Your task to perform on an android device: check android version Image 0: 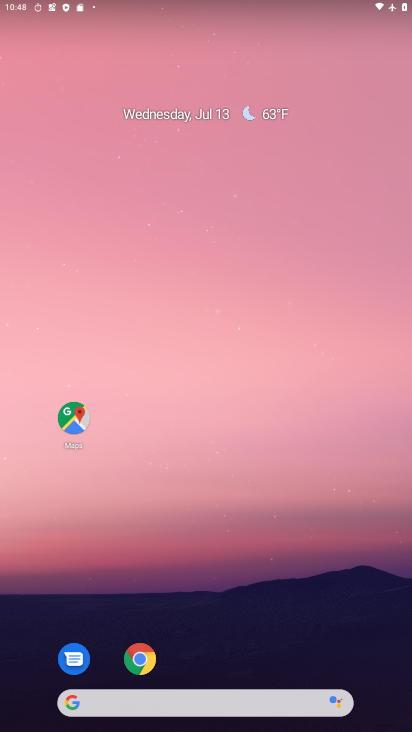
Step 0: drag from (289, 579) to (273, 99)
Your task to perform on an android device: check android version Image 1: 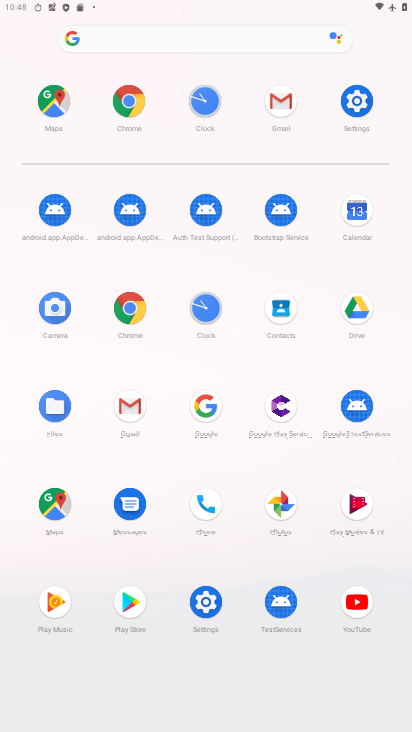
Step 1: click (351, 98)
Your task to perform on an android device: check android version Image 2: 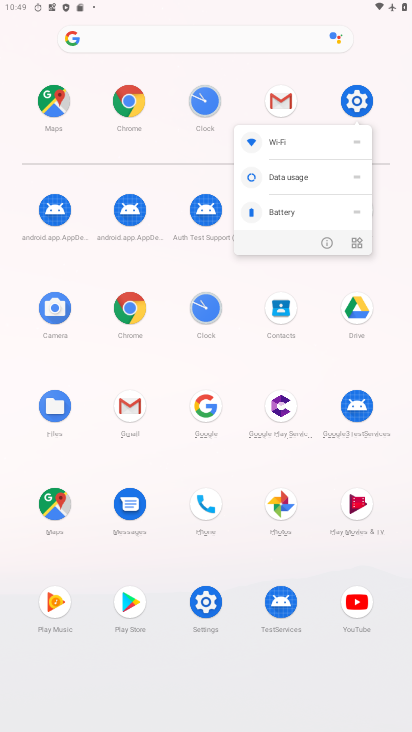
Step 2: click (367, 96)
Your task to perform on an android device: check android version Image 3: 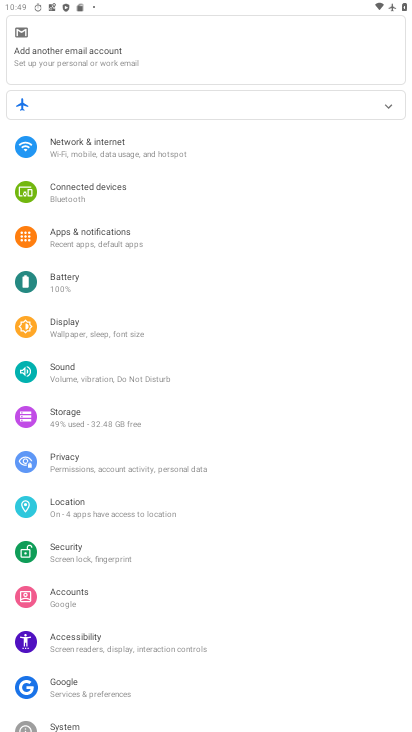
Step 3: drag from (231, 686) to (299, 110)
Your task to perform on an android device: check android version Image 4: 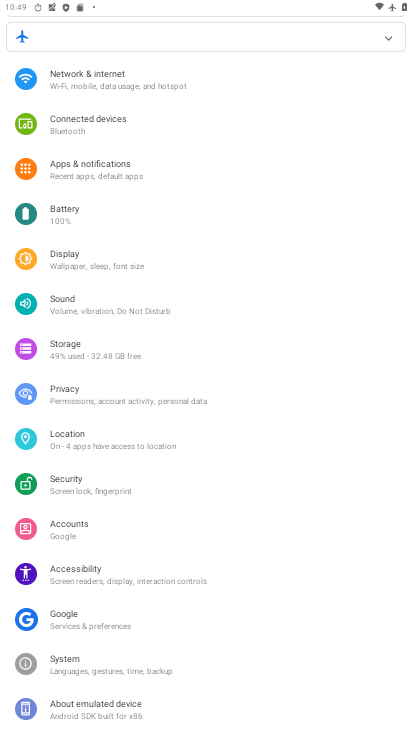
Step 4: click (108, 700)
Your task to perform on an android device: check android version Image 5: 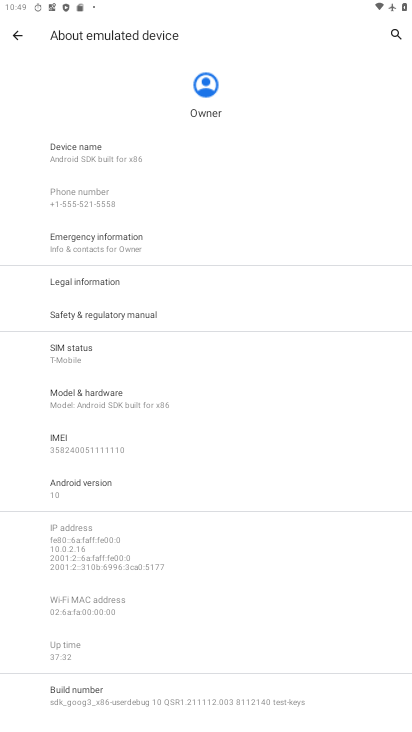
Step 5: click (91, 488)
Your task to perform on an android device: check android version Image 6: 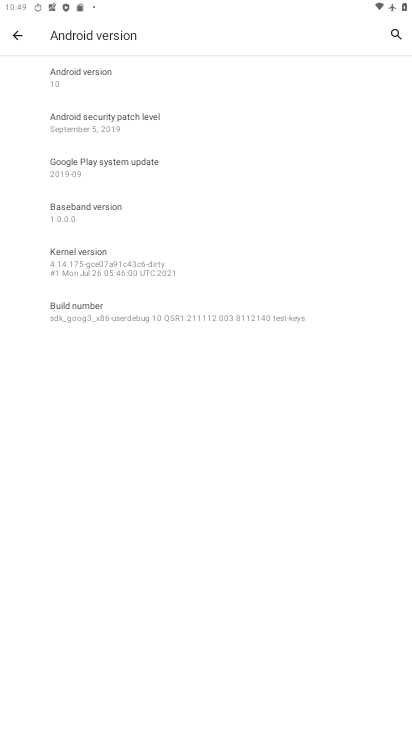
Step 6: task complete